Your task to perform on an android device: Show me popular games on the Play Store Image 0: 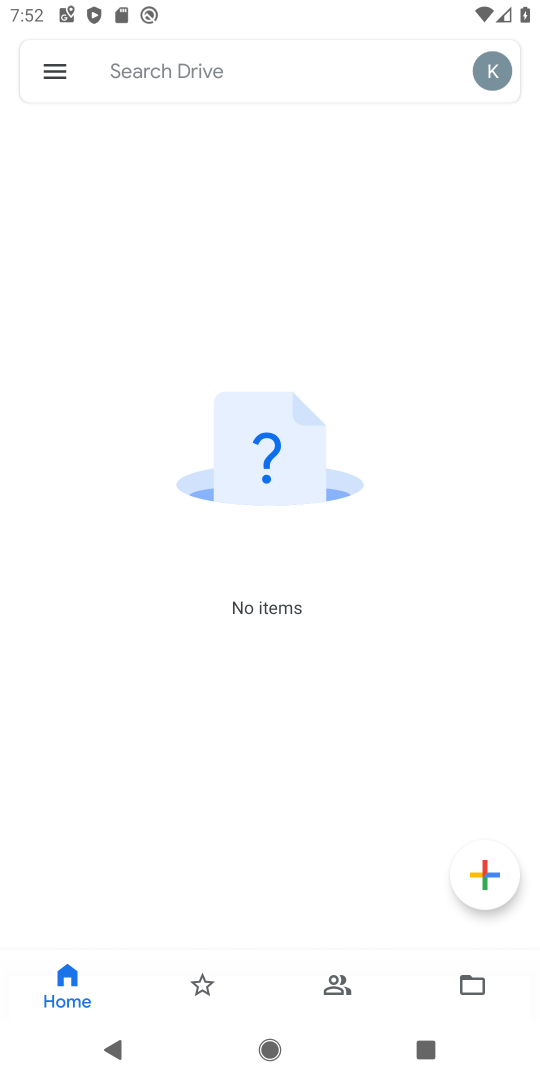
Step 0: press home button
Your task to perform on an android device: Show me popular games on the Play Store Image 1: 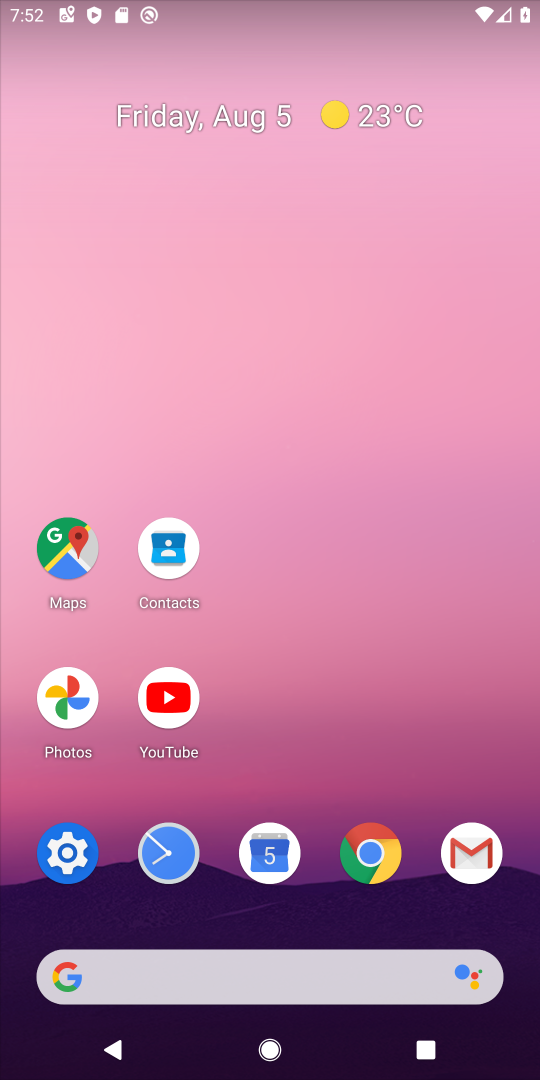
Step 1: drag from (341, 778) to (266, 51)
Your task to perform on an android device: Show me popular games on the Play Store Image 2: 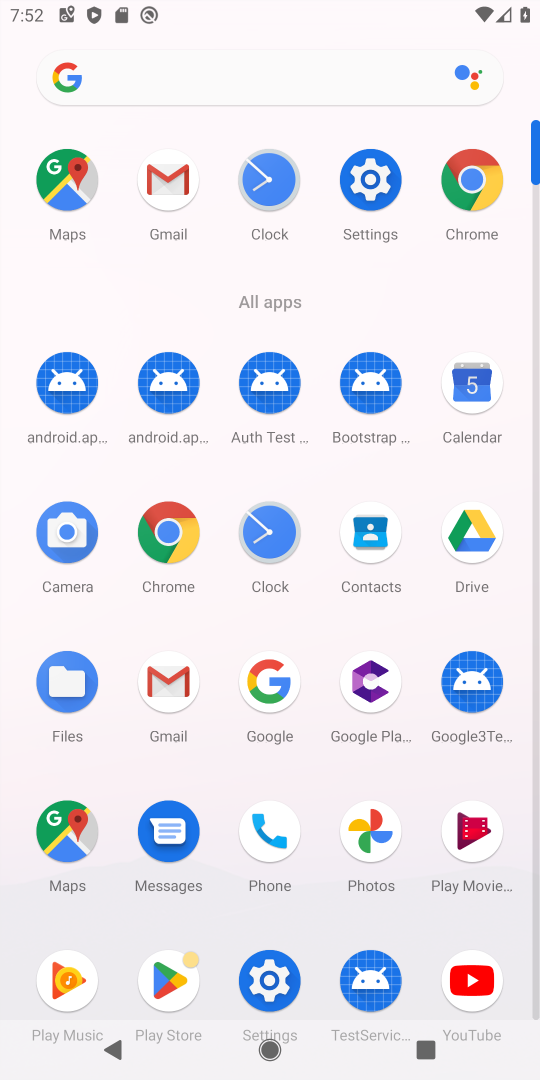
Step 2: click (162, 982)
Your task to perform on an android device: Show me popular games on the Play Store Image 3: 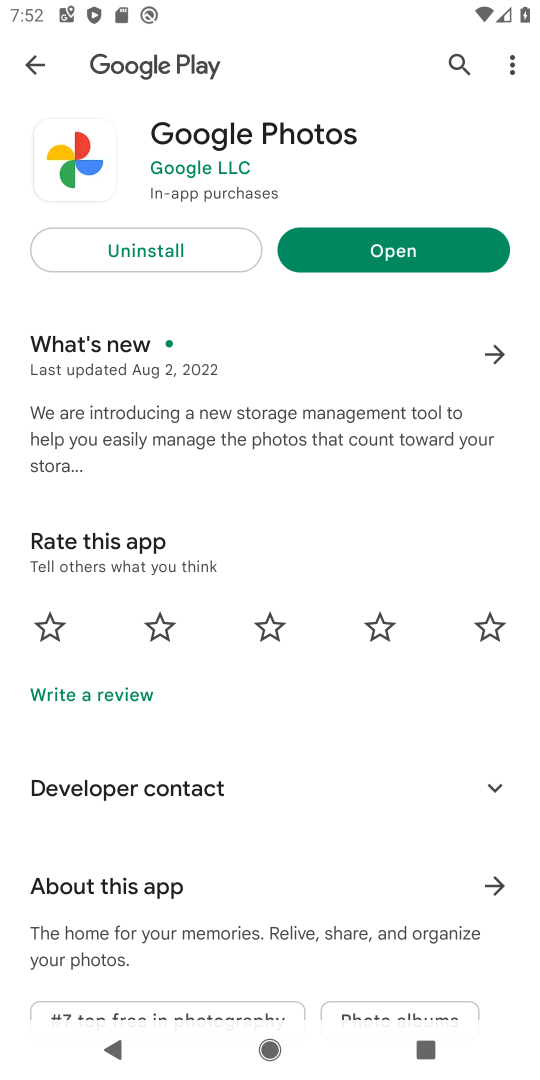
Step 3: click (33, 60)
Your task to perform on an android device: Show me popular games on the Play Store Image 4: 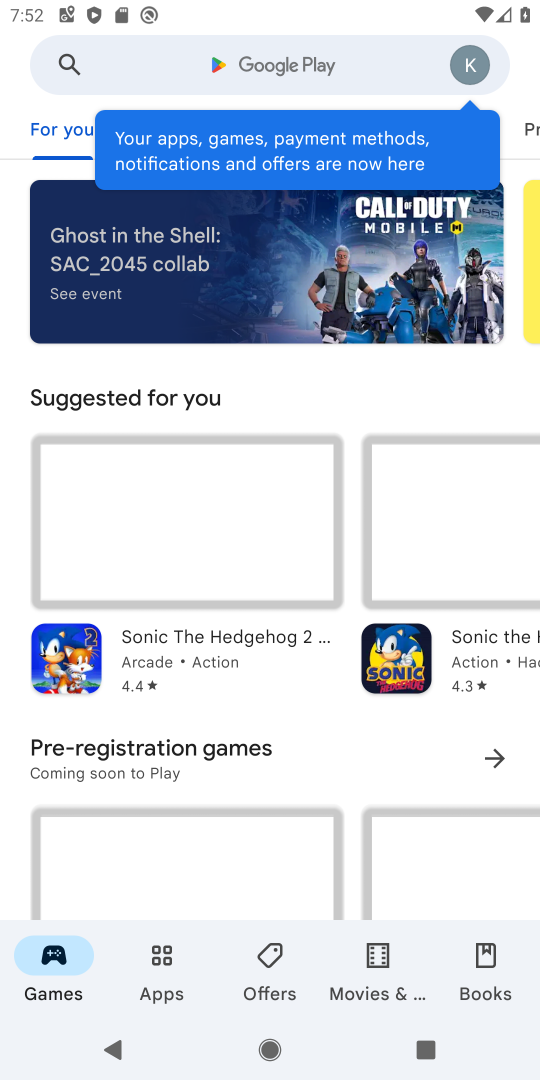
Step 4: click (158, 957)
Your task to perform on an android device: Show me popular games on the Play Store Image 5: 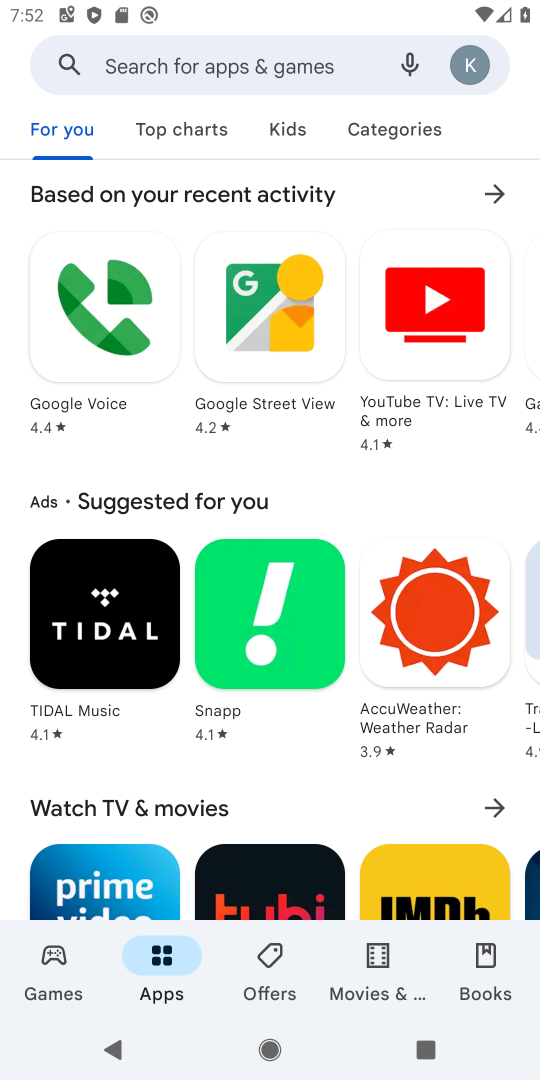
Step 5: task complete